Your task to perform on an android device: Is it going to rain today? Image 0: 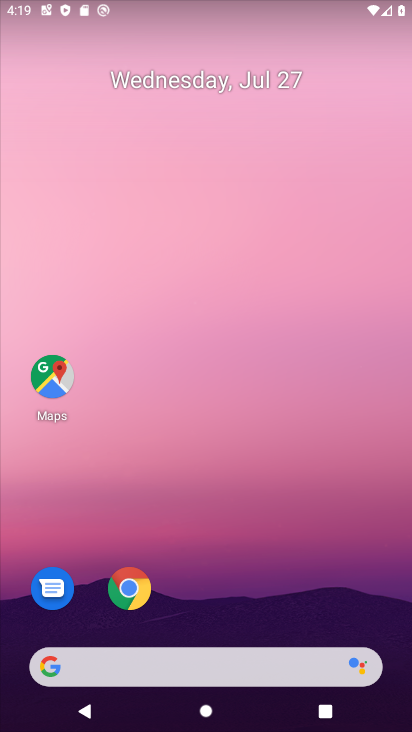
Step 0: drag from (244, 726) to (235, 67)
Your task to perform on an android device: Is it going to rain today? Image 1: 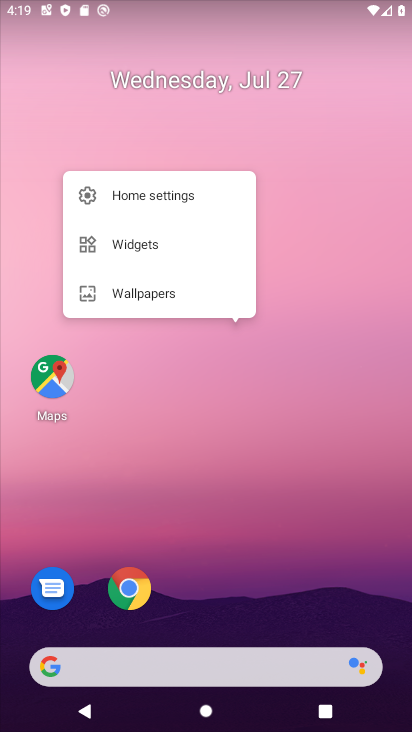
Step 1: click (190, 410)
Your task to perform on an android device: Is it going to rain today? Image 2: 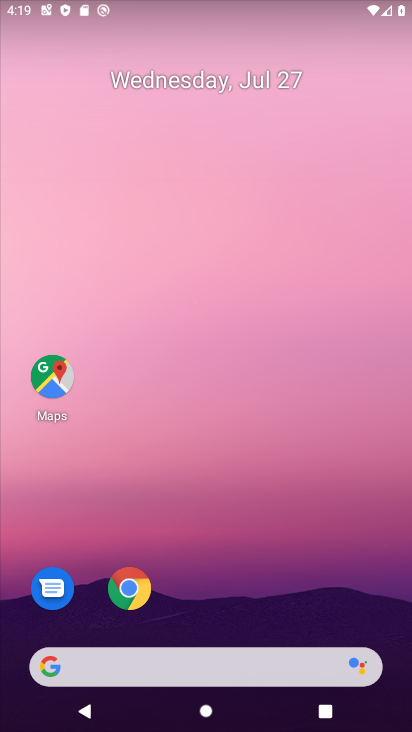
Step 2: drag from (232, 725) to (218, 156)
Your task to perform on an android device: Is it going to rain today? Image 3: 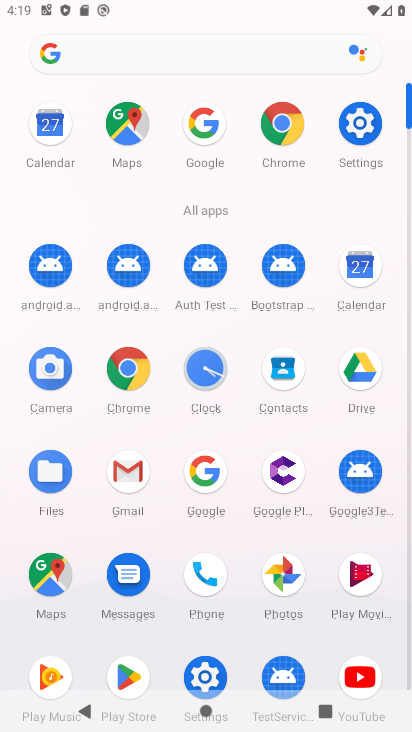
Step 3: click (205, 475)
Your task to perform on an android device: Is it going to rain today? Image 4: 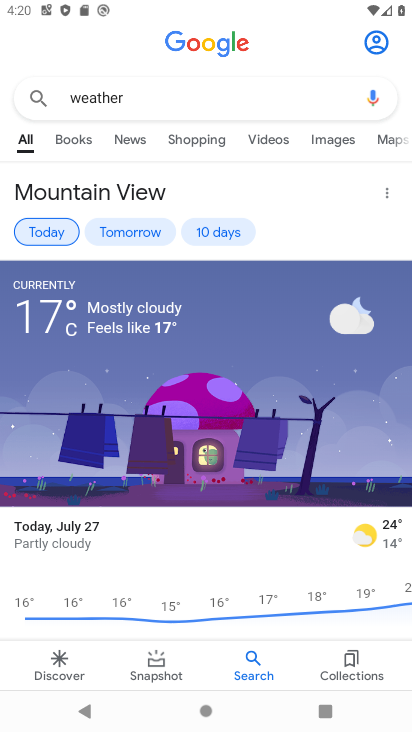
Step 4: click (44, 230)
Your task to perform on an android device: Is it going to rain today? Image 5: 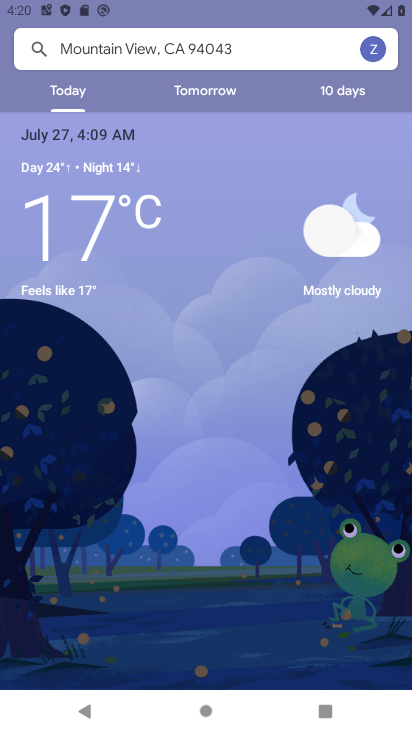
Step 5: task complete